Your task to perform on an android device: show emergency info Image 0: 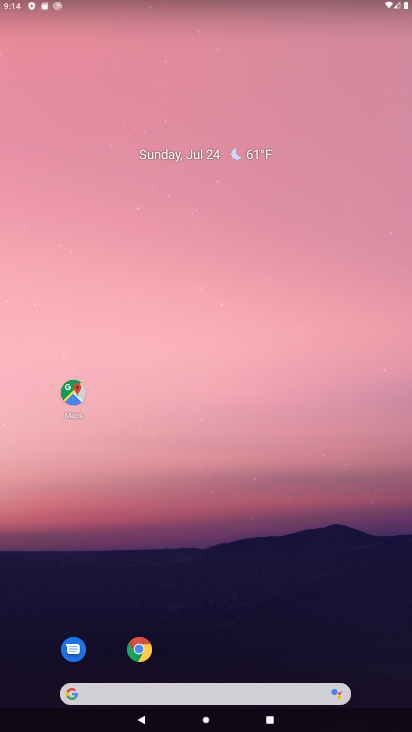
Step 0: drag from (282, 526) to (279, 0)
Your task to perform on an android device: show emergency info Image 1: 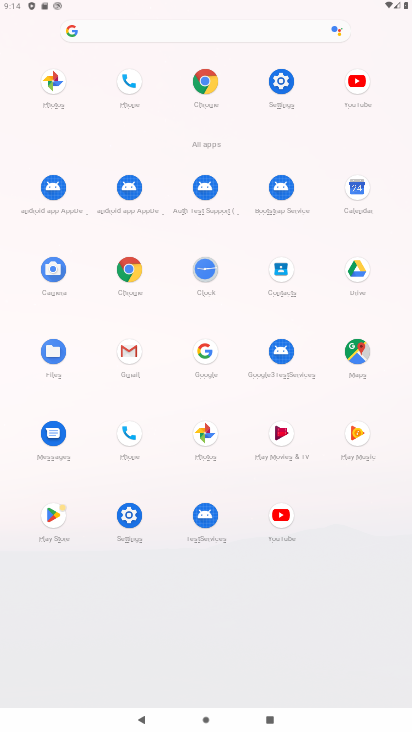
Step 1: click (284, 86)
Your task to perform on an android device: show emergency info Image 2: 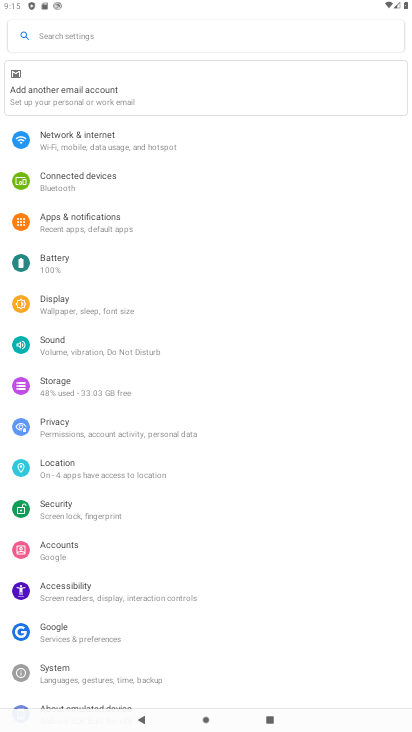
Step 2: drag from (183, 653) to (243, 162)
Your task to perform on an android device: show emergency info Image 3: 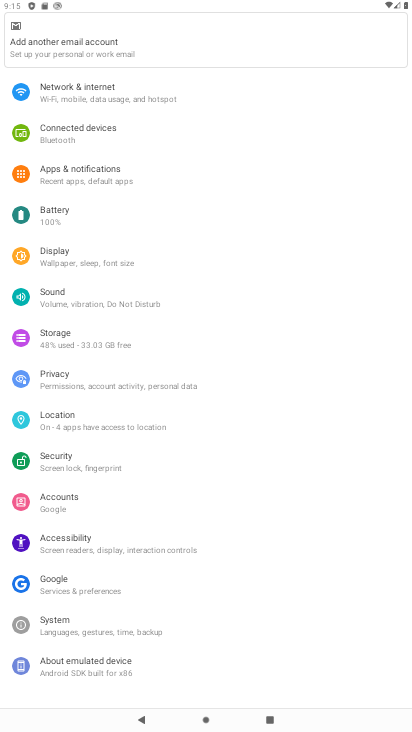
Step 3: click (78, 665)
Your task to perform on an android device: show emergency info Image 4: 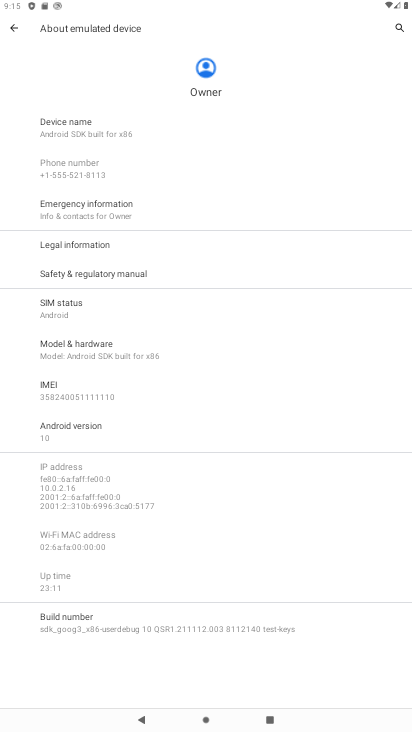
Step 4: click (89, 209)
Your task to perform on an android device: show emergency info Image 5: 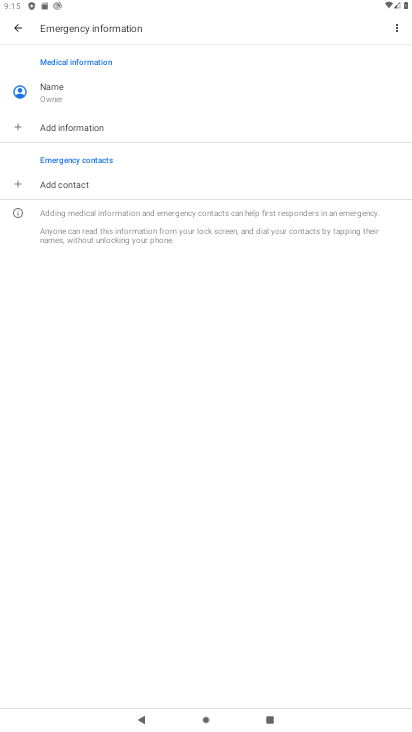
Step 5: task complete